Your task to perform on an android device: Open the phone app and click the voicemail tab. Image 0: 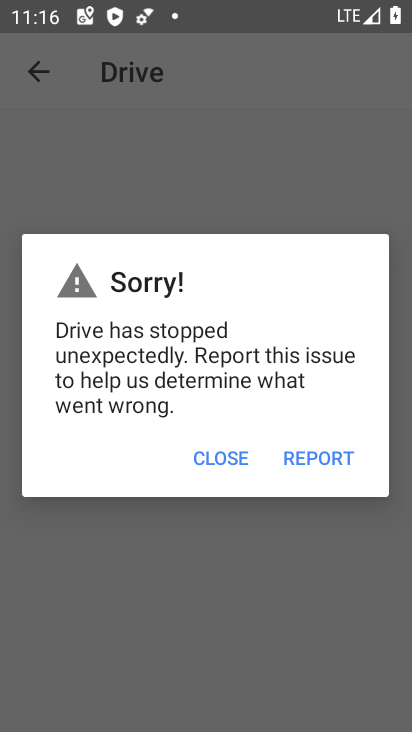
Step 0: press home button
Your task to perform on an android device: Open the phone app and click the voicemail tab. Image 1: 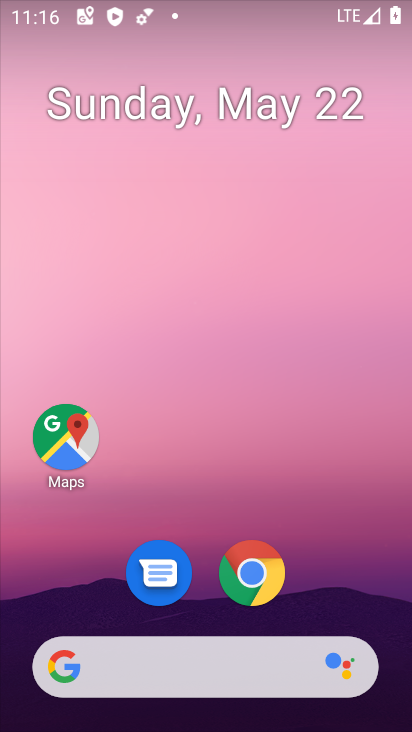
Step 1: drag from (228, 612) to (147, 126)
Your task to perform on an android device: Open the phone app and click the voicemail tab. Image 2: 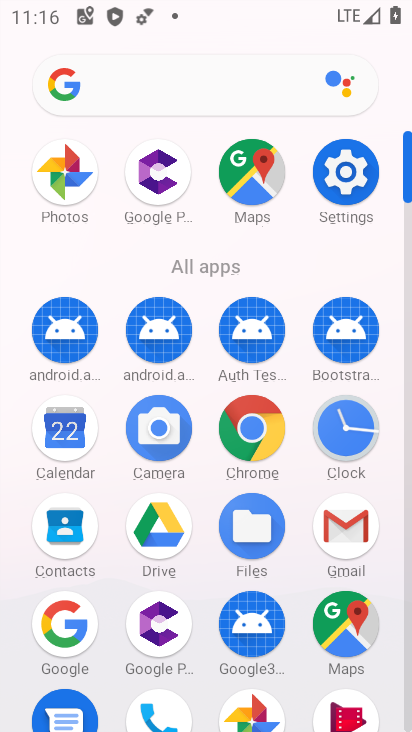
Step 2: click (162, 703)
Your task to perform on an android device: Open the phone app and click the voicemail tab. Image 3: 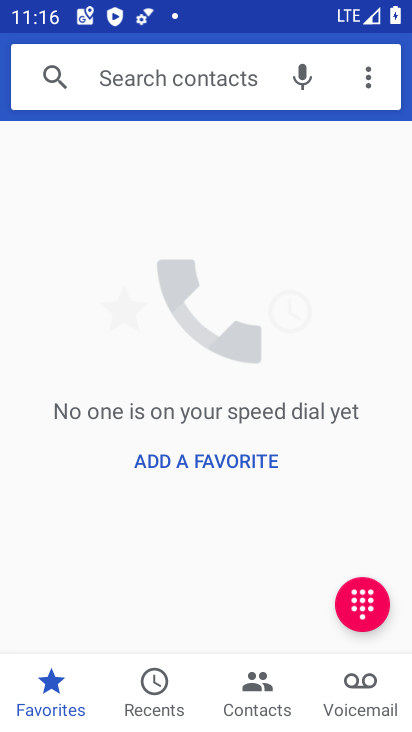
Step 3: click (340, 699)
Your task to perform on an android device: Open the phone app and click the voicemail tab. Image 4: 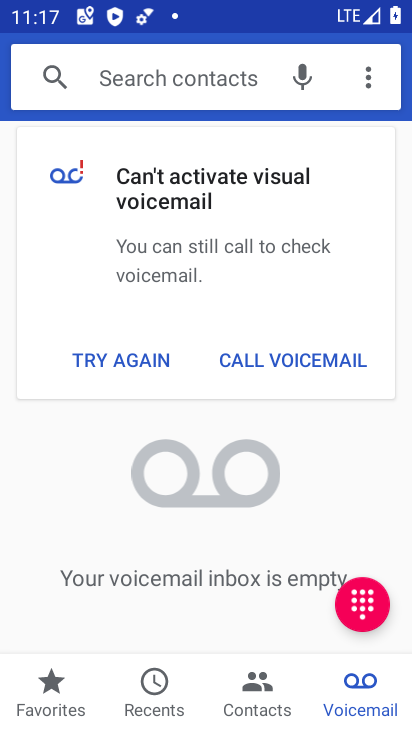
Step 4: task complete